Your task to perform on an android device: Go to CNN.com Image 0: 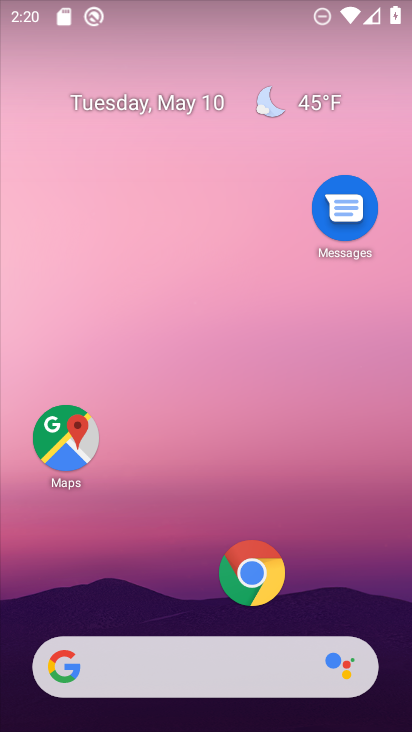
Step 0: drag from (200, 596) to (207, 217)
Your task to perform on an android device: Go to CNN.com Image 1: 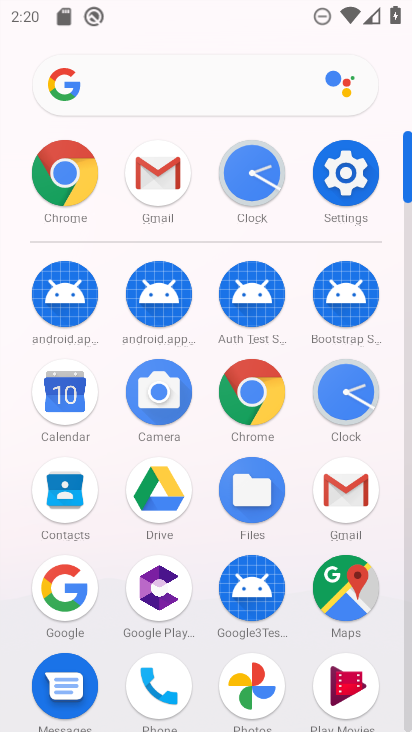
Step 1: click (206, 93)
Your task to perform on an android device: Go to CNN.com Image 2: 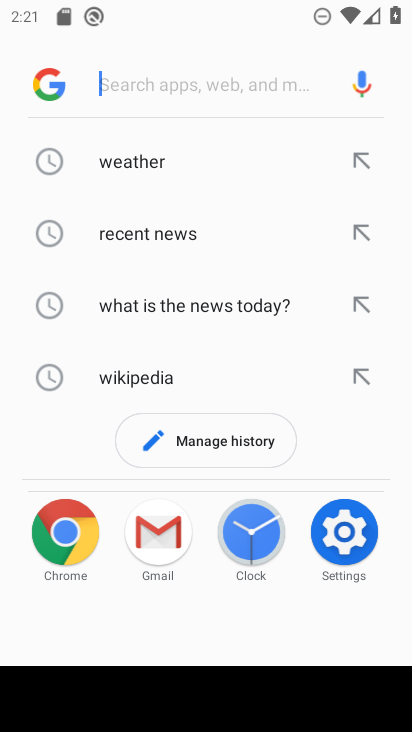
Step 2: type "cnn.com"
Your task to perform on an android device: Go to CNN.com Image 3: 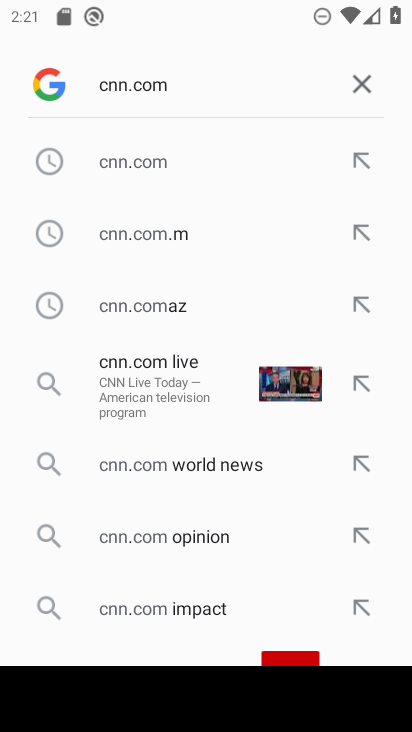
Step 3: click (135, 148)
Your task to perform on an android device: Go to CNN.com Image 4: 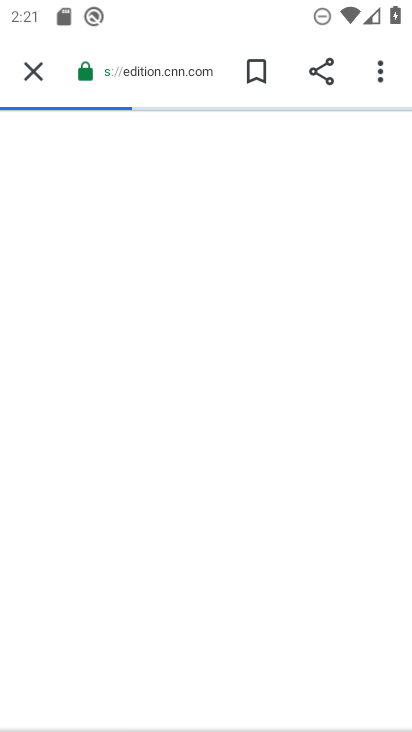
Step 4: task complete